Your task to perform on an android device: turn notification dots on Image 0: 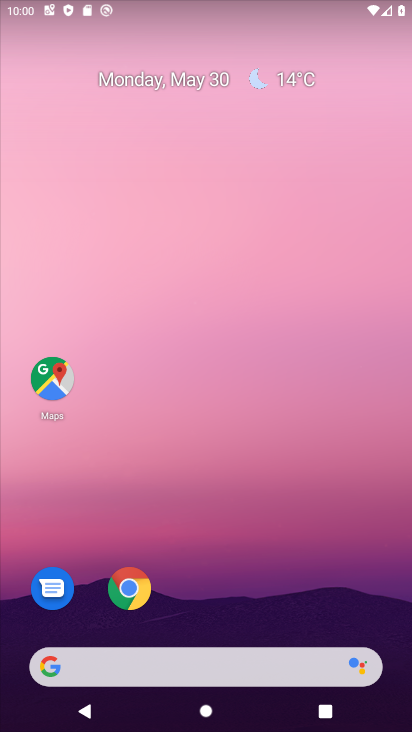
Step 0: drag from (176, 633) to (345, 61)
Your task to perform on an android device: turn notification dots on Image 1: 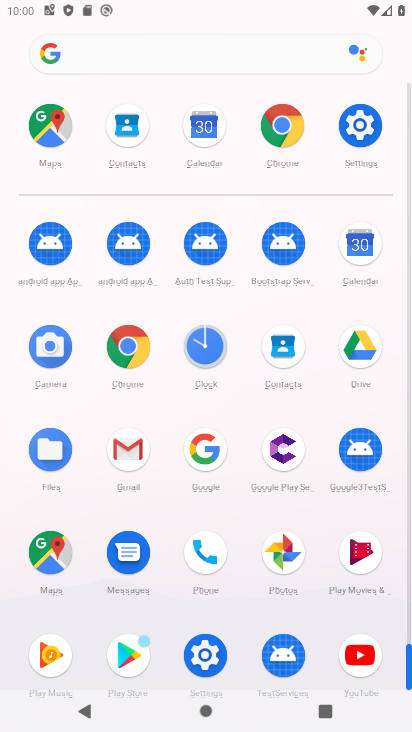
Step 1: click (363, 142)
Your task to perform on an android device: turn notification dots on Image 2: 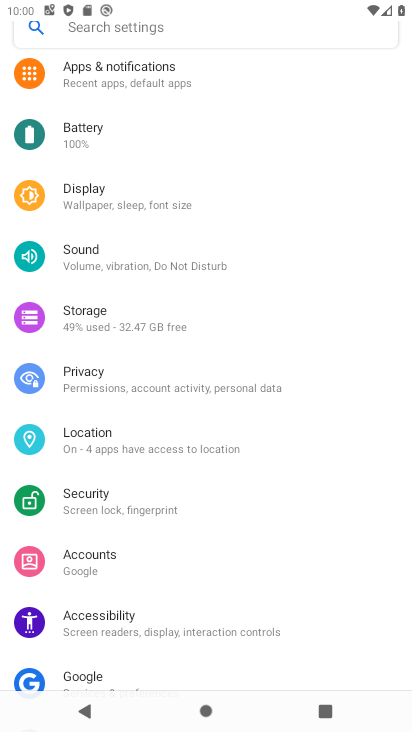
Step 2: click (170, 80)
Your task to perform on an android device: turn notification dots on Image 3: 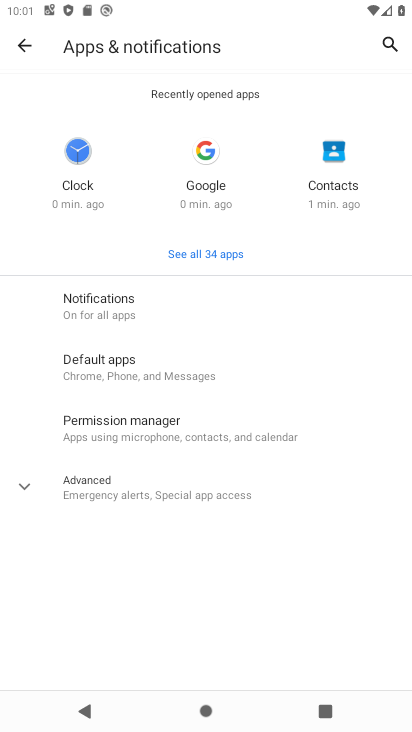
Step 3: click (101, 314)
Your task to perform on an android device: turn notification dots on Image 4: 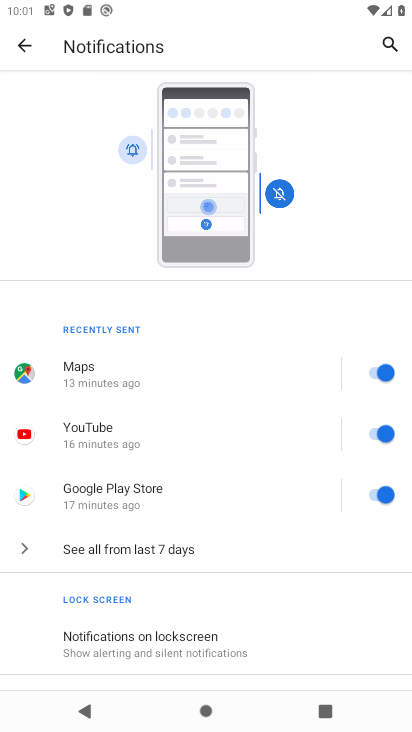
Step 4: drag from (152, 612) to (282, 33)
Your task to perform on an android device: turn notification dots on Image 5: 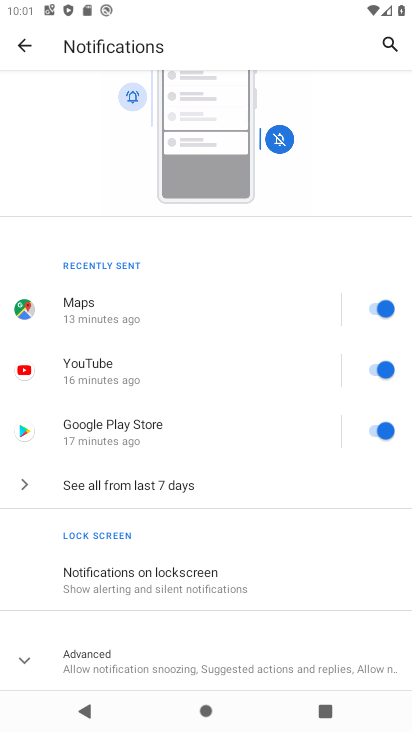
Step 5: click (153, 668)
Your task to perform on an android device: turn notification dots on Image 6: 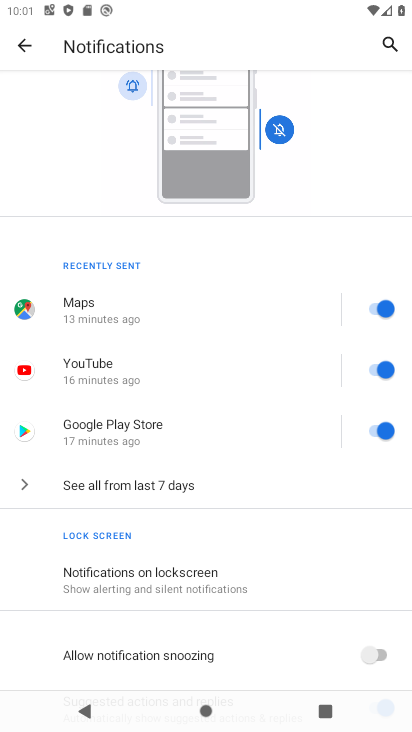
Step 6: task complete